Your task to perform on an android device: turn on translation in the chrome app Image 0: 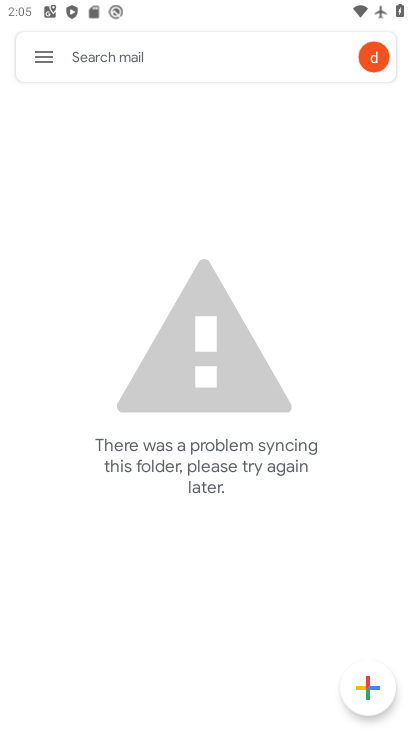
Step 0: press home button
Your task to perform on an android device: turn on translation in the chrome app Image 1: 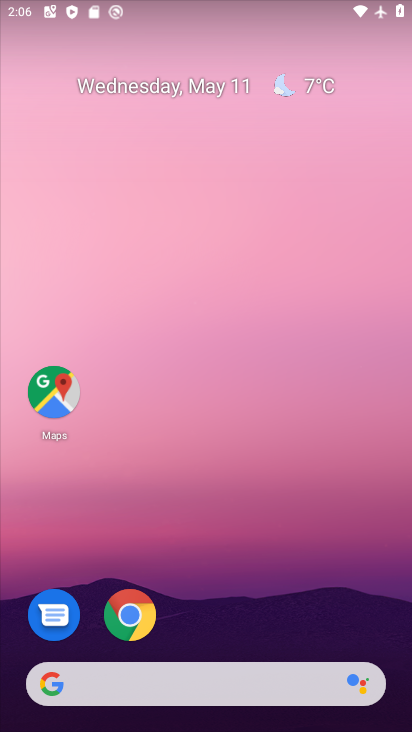
Step 1: click (127, 612)
Your task to perform on an android device: turn on translation in the chrome app Image 2: 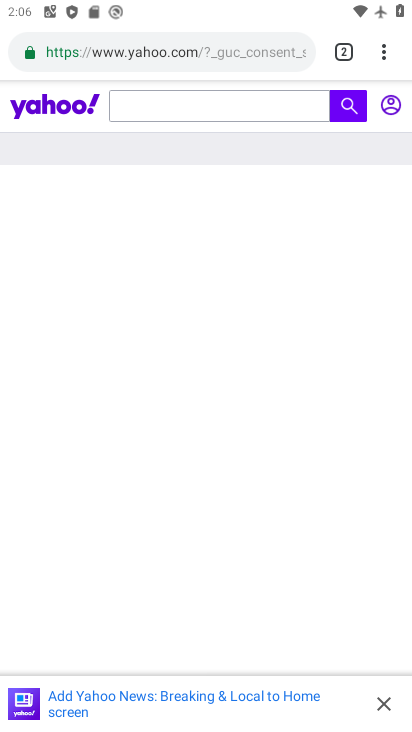
Step 2: drag from (388, 46) to (223, 640)
Your task to perform on an android device: turn on translation in the chrome app Image 3: 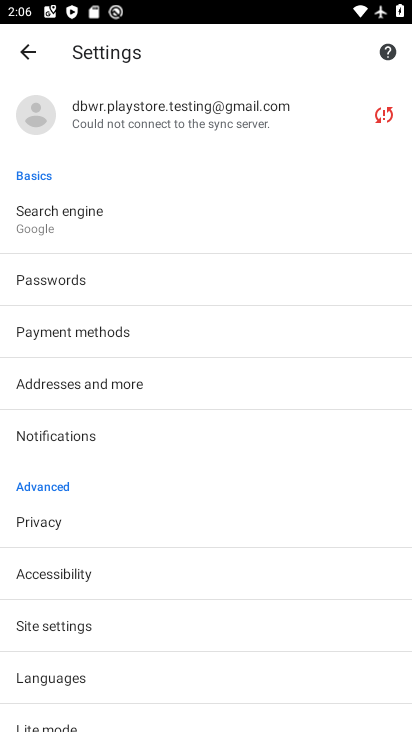
Step 3: drag from (160, 639) to (279, 360)
Your task to perform on an android device: turn on translation in the chrome app Image 4: 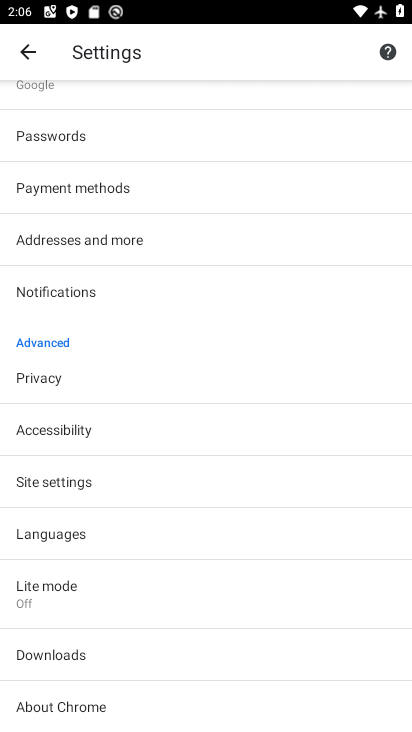
Step 4: click (104, 528)
Your task to perform on an android device: turn on translation in the chrome app Image 5: 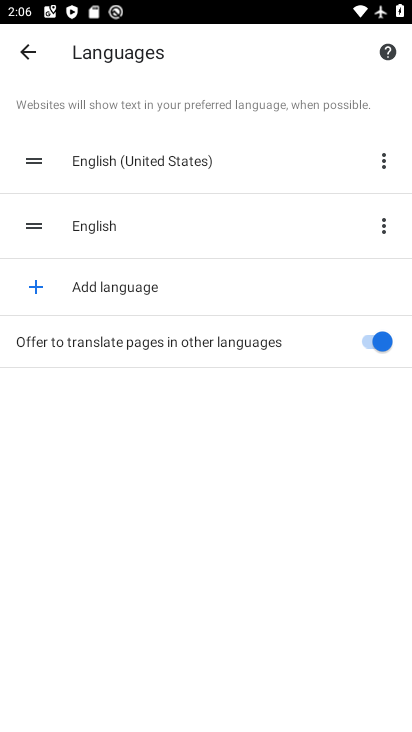
Step 5: task complete